Your task to perform on an android device: Open CNN.com Image 0: 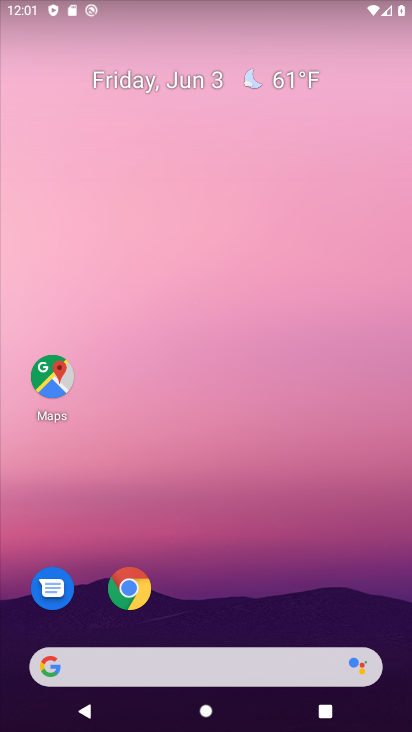
Step 0: drag from (283, 175) to (285, 126)
Your task to perform on an android device: Open CNN.com Image 1: 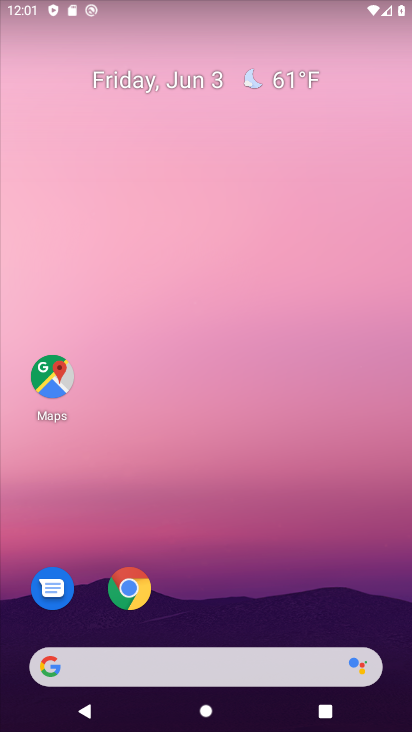
Step 1: drag from (246, 582) to (275, 129)
Your task to perform on an android device: Open CNN.com Image 2: 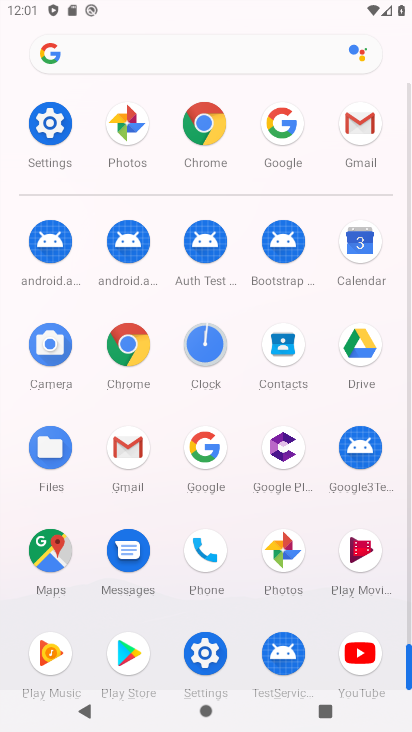
Step 2: click (140, 350)
Your task to perform on an android device: Open CNN.com Image 3: 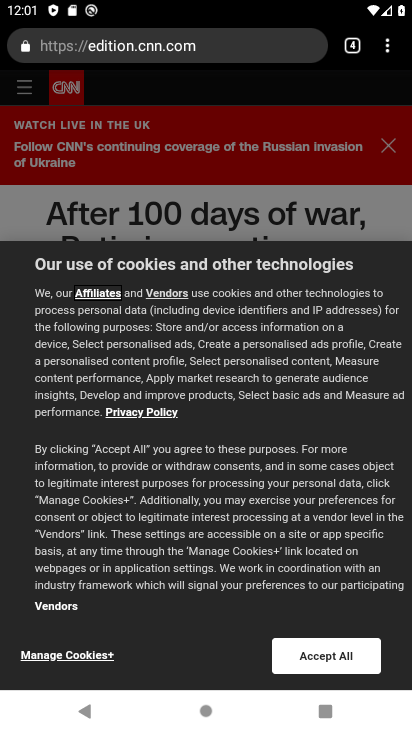
Step 3: click (327, 185)
Your task to perform on an android device: Open CNN.com Image 4: 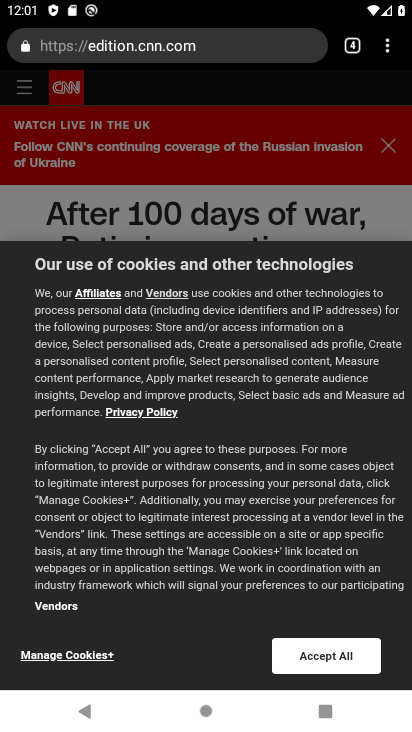
Step 4: click (342, 666)
Your task to perform on an android device: Open CNN.com Image 5: 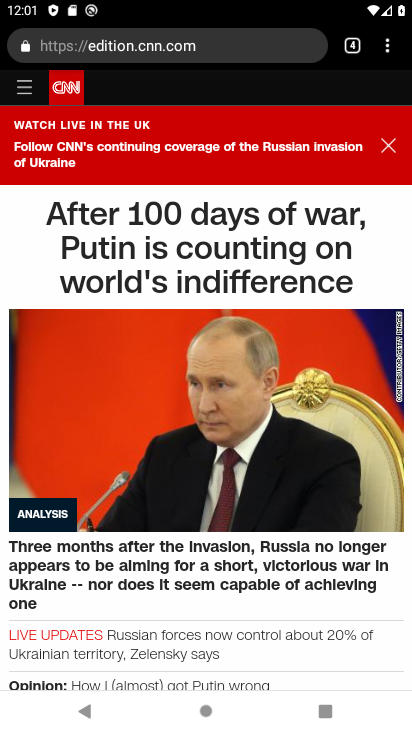
Step 5: task complete